Your task to perform on an android device: add a contact in the contacts app Image 0: 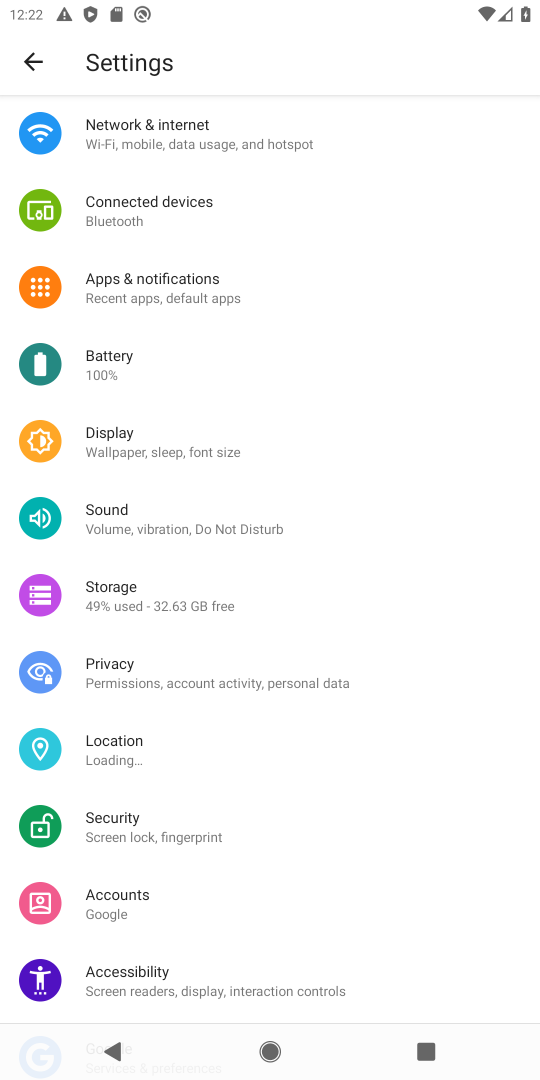
Step 0: press home button
Your task to perform on an android device: add a contact in the contacts app Image 1: 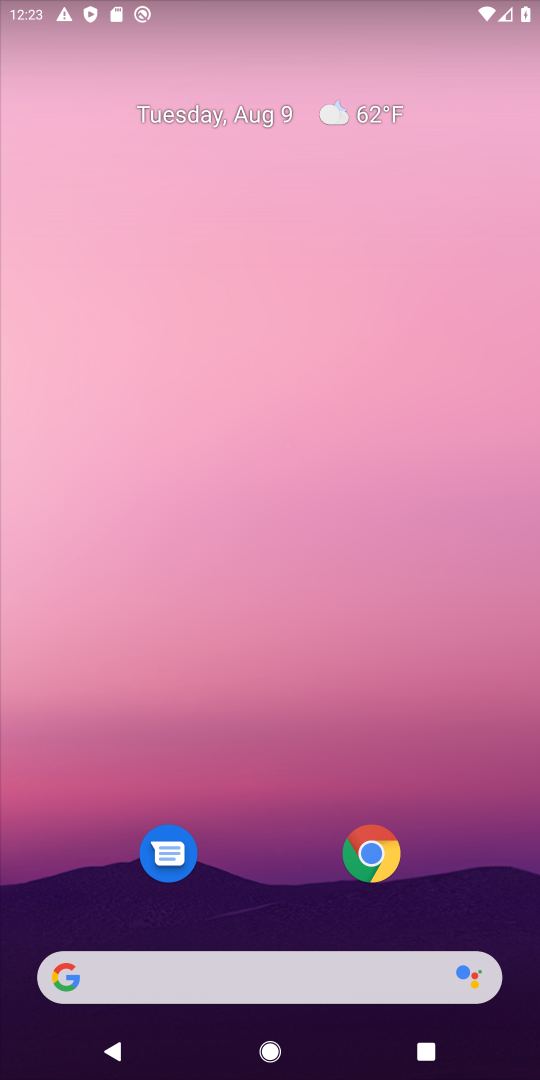
Step 1: drag from (280, 879) to (288, 116)
Your task to perform on an android device: add a contact in the contacts app Image 2: 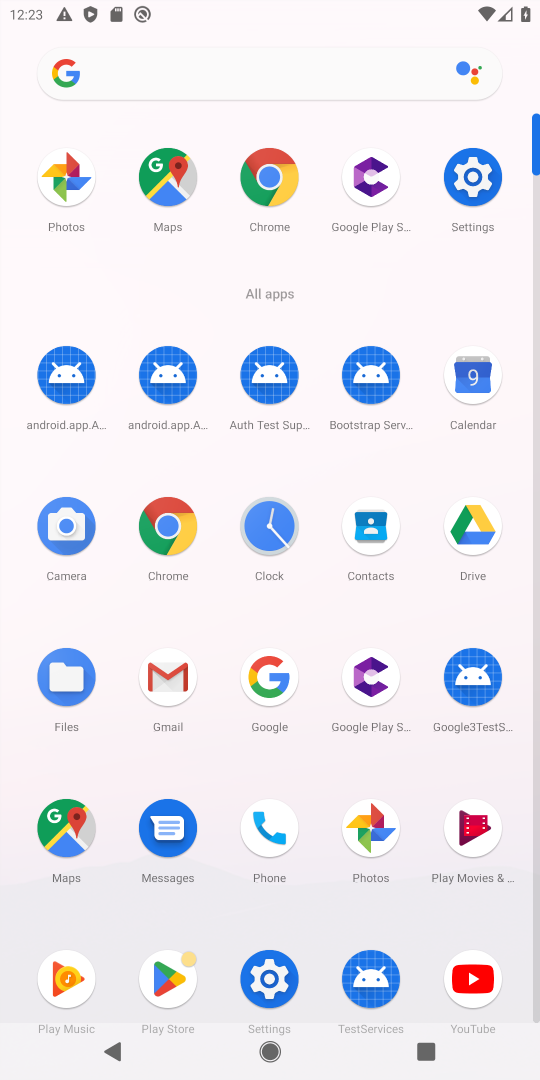
Step 2: click (379, 528)
Your task to perform on an android device: add a contact in the contacts app Image 3: 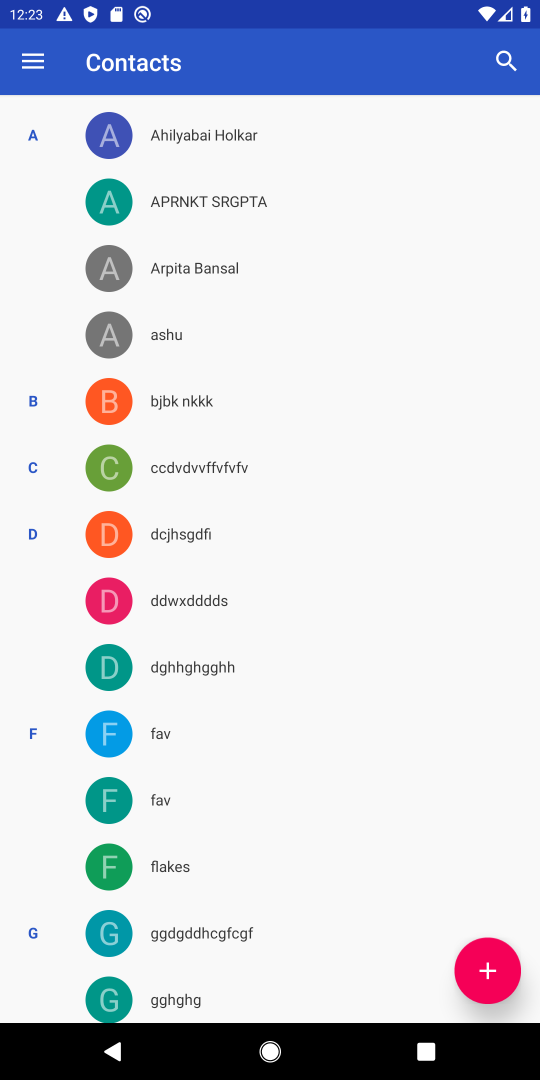
Step 3: click (504, 978)
Your task to perform on an android device: add a contact in the contacts app Image 4: 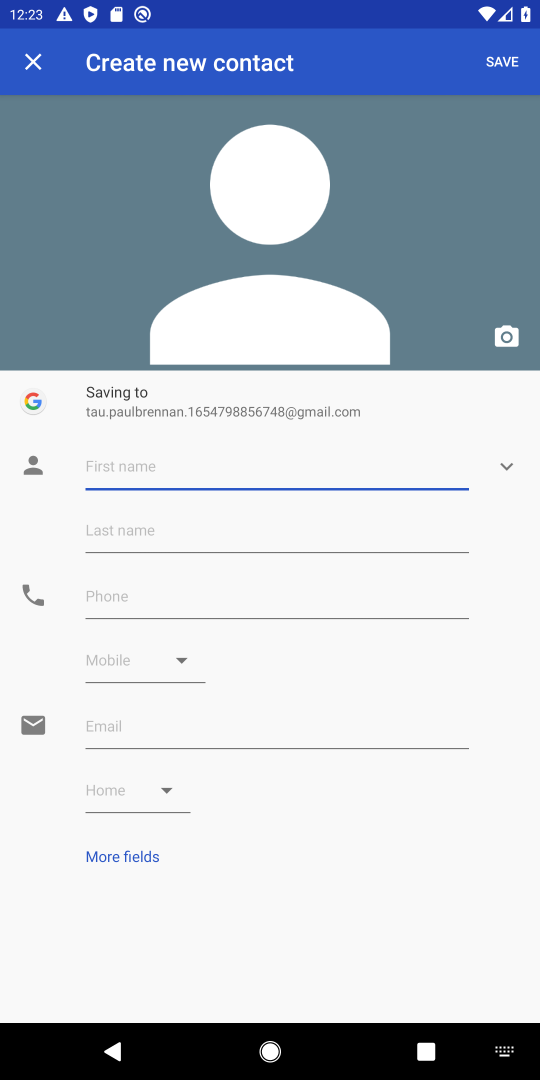
Step 4: type "drddfdfhghghg"
Your task to perform on an android device: add a contact in the contacts app Image 5: 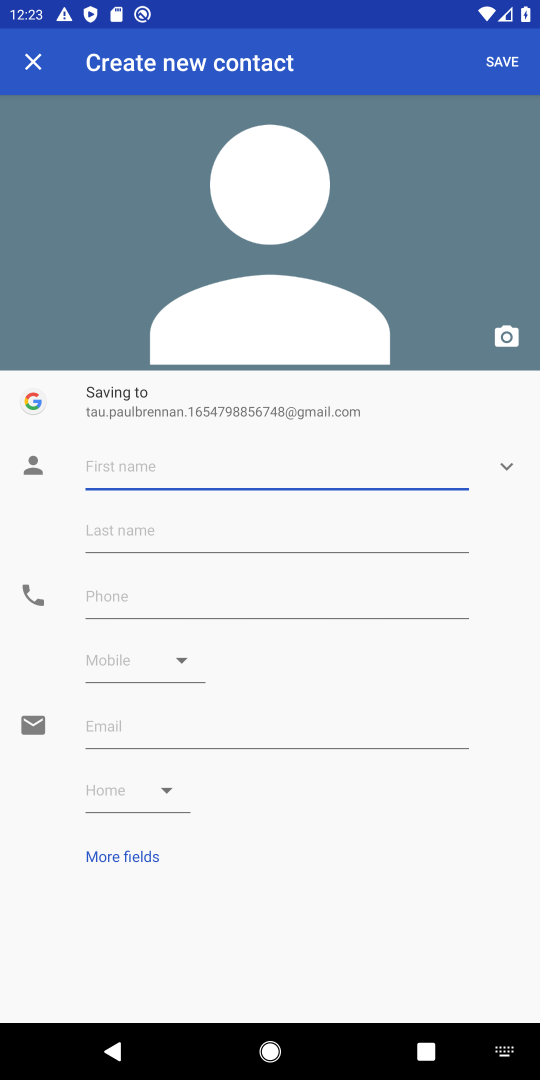
Step 5: click (241, 474)
Your task to perform on an android device: add a contact in the contacts app Image 6: 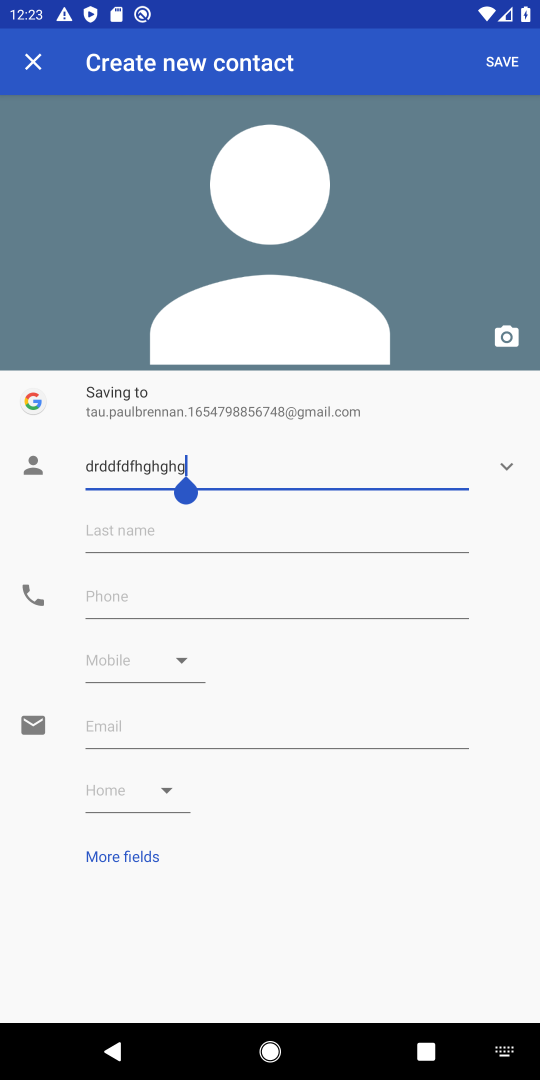
Step 6: click (141, 590)
Your task to perform on an android device: add a contact in the contacts app Image 7: 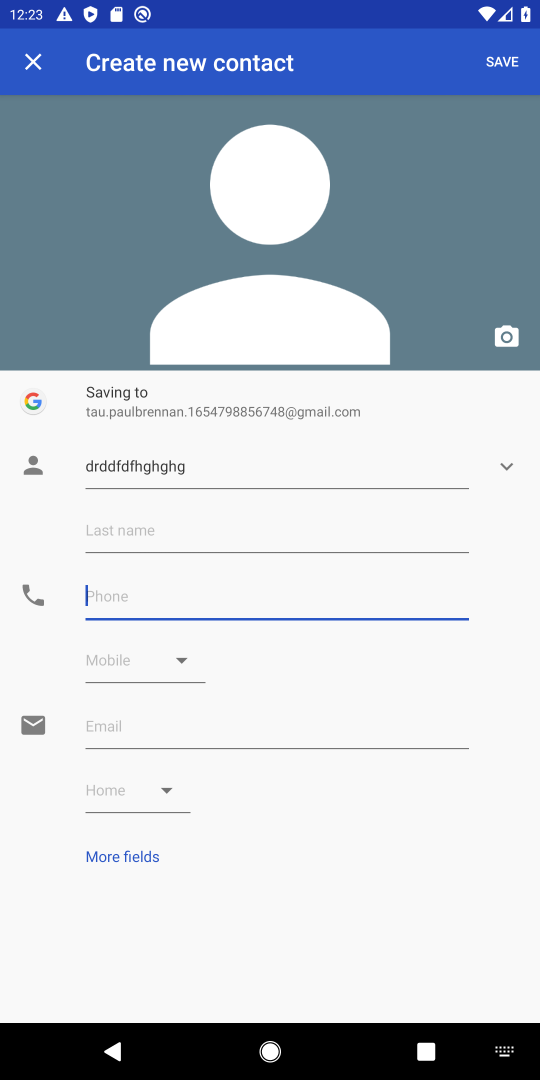
Step 7: type "53653536565"
Your task to perform on an android device: add a contact in the contacts app Image 8: 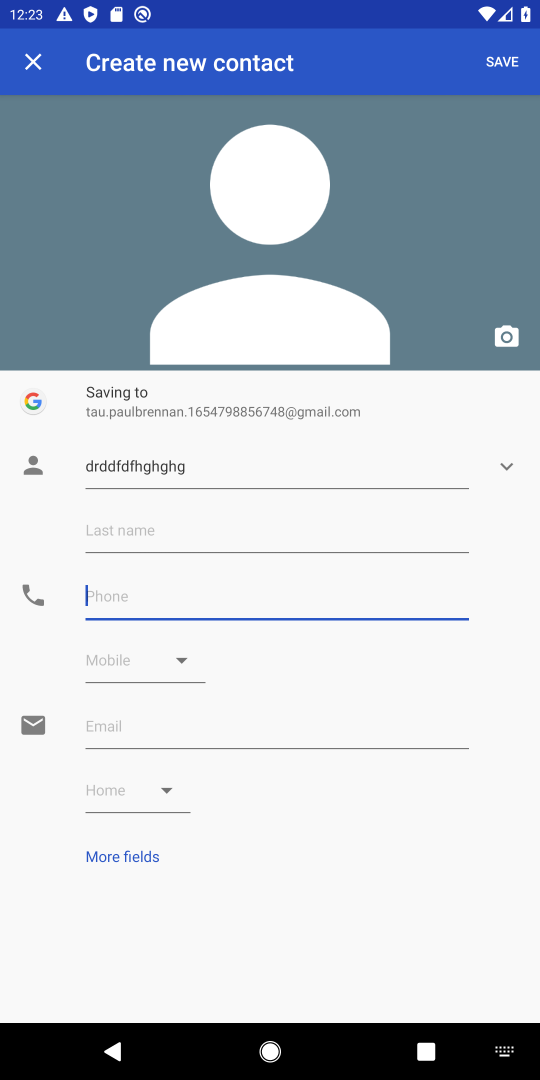
Step 8: click (118, 588)
Your task to perform on an android device: add a contact in the contacts app Image 9: 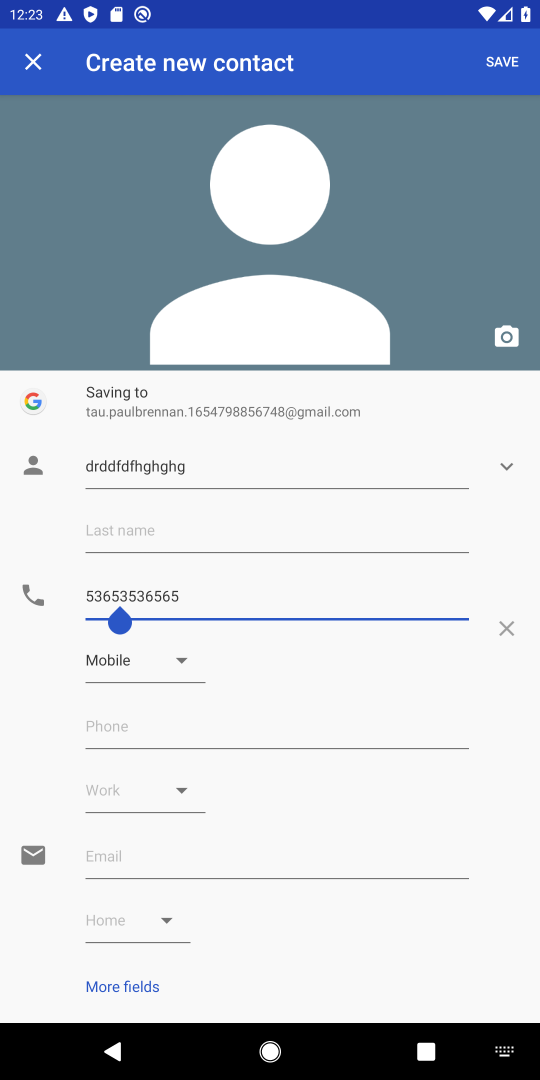
Step 9: click (504, 65)
Your task to perform on an android device: add a contact in the contacts app Image 10: 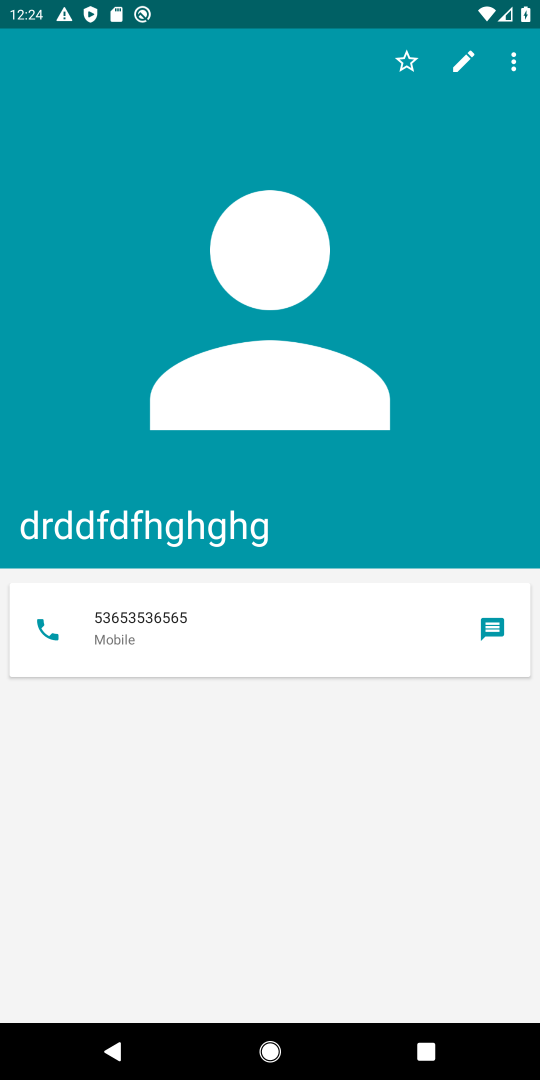
Step 10: task complete